Your task to perform on an android device: toggle show notifications on the lock screen Image 0: 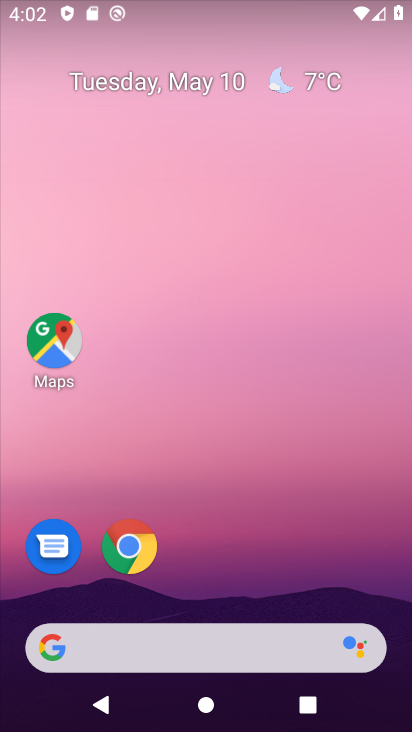
Step 0: drag from (220, 626) to (311, 107)
Your task to perform on an android device: toggle show notifications on the lock screen Image 1: 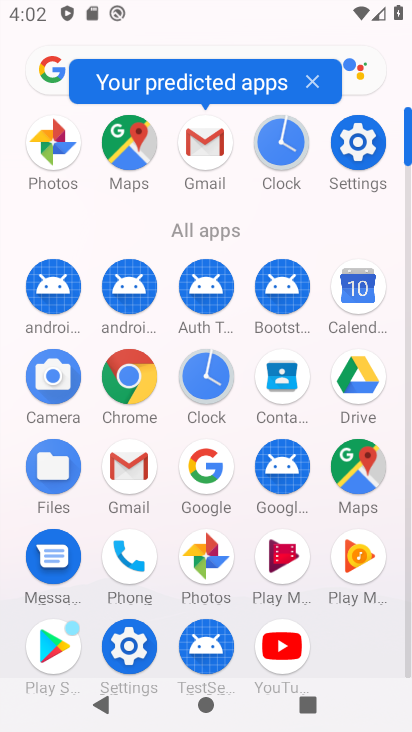
Step 1: click (128, 634)
Your task to perform on an android device: toggle show notifications on the lock screen Image 2: 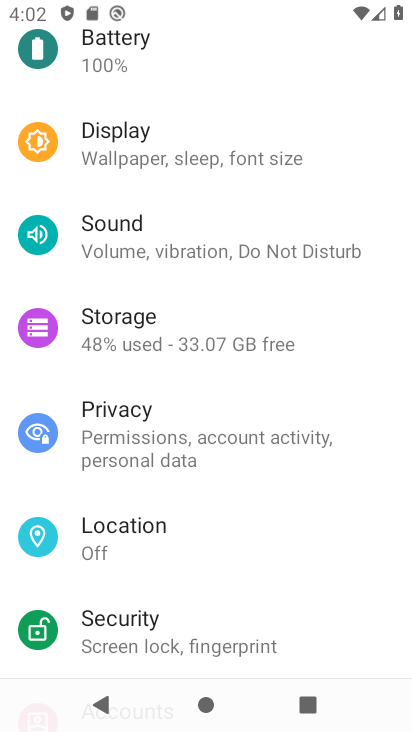
Step 2: drag from (208, 613) to (275, 353)
Your task to perform on an android device: toggle show notifications on the lock screen Image 3: 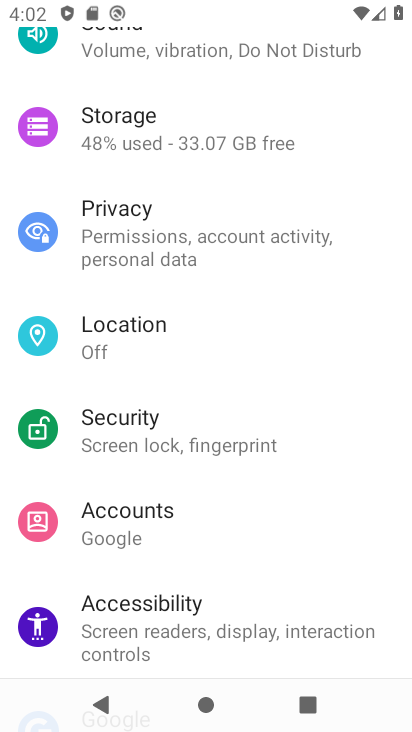
Step 3: drag from (192, 631) to (217, 714)
Your task to perform on an android device: toggle show notifications on the lock screen Image 4: 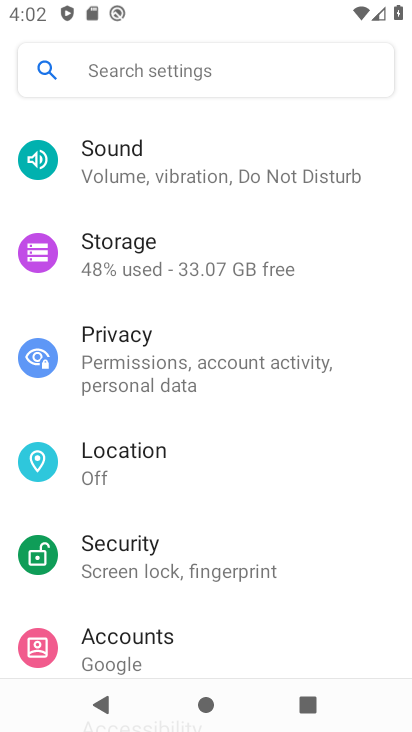
Step 4: drag from (248, 249) to (209, 658)
Your task to perform on an android device: toggle show notifications on the lock screen Image 5: 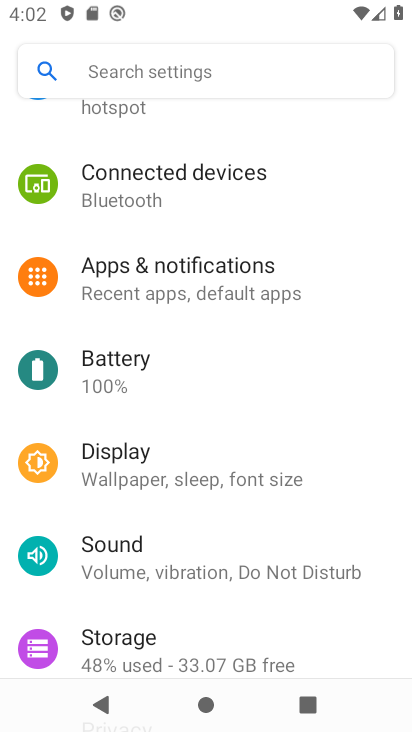
Step 5: click (234, 295)
Your task to perform on an android device: toggle show notifications on the lock screen Image 6: 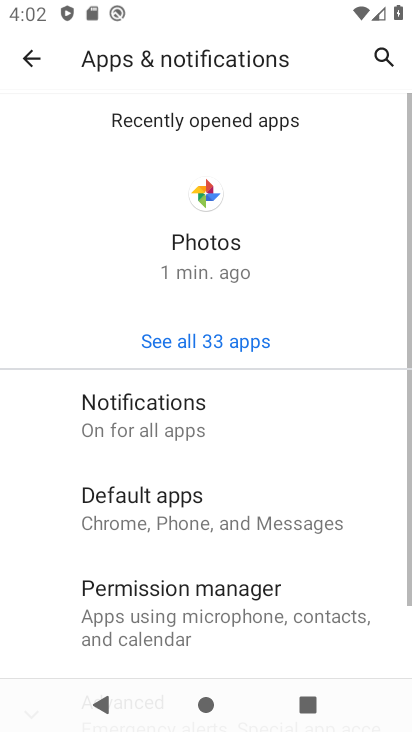
Step 6: click (207, 416)
Your task to perform on an android device: toggle show notifications on the lock screen Image 7: 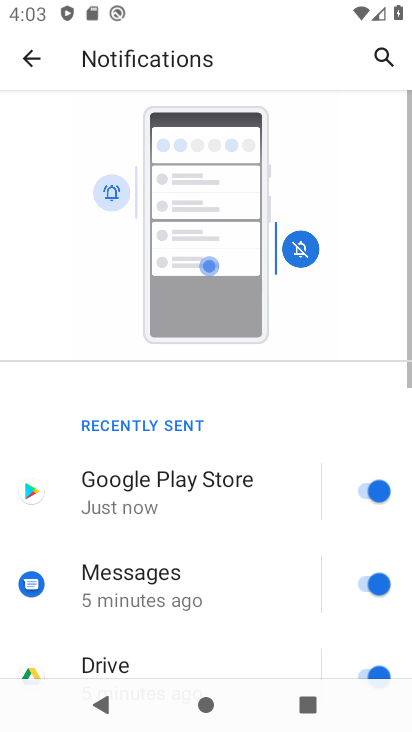
Step 7: drag from (208, 591) to (299, 189)
Your task to perform on an android device: toggle show notifications on the lock screen Image 8: 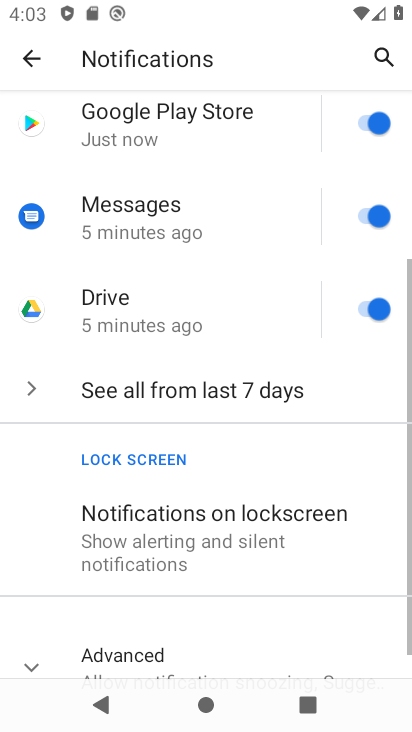
Step 8: drag from (231, 596) to (276, 356)
Your task to perform on an android device: toggle show notifications on the lock screen Image 9: 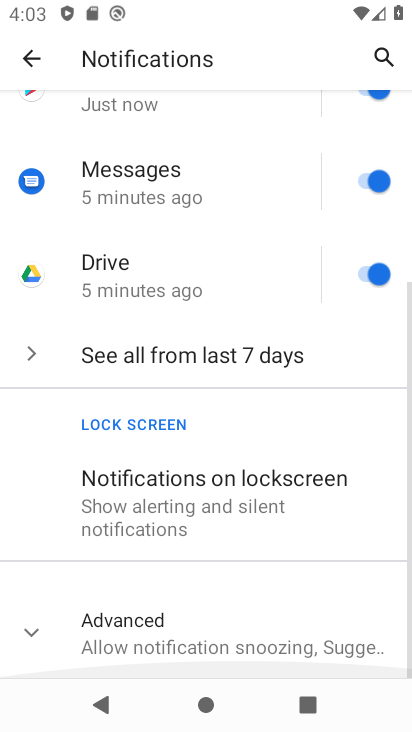
Step 9: click (242, 476)
Your task to perform on an android device: toggle show notifications on the lock screen Image 10: 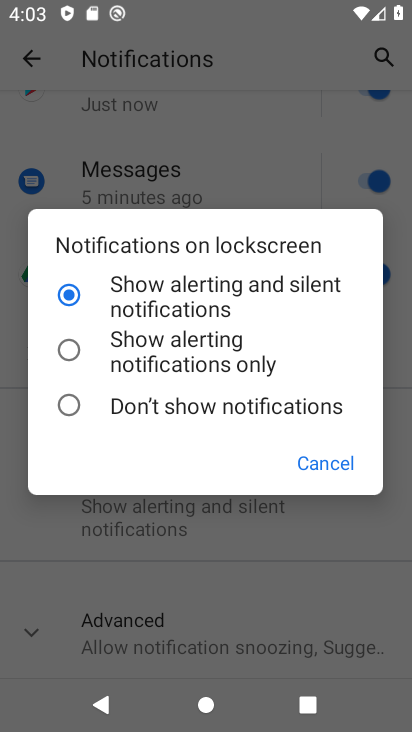
Step 10: click (168, 403)
Your task to perform on an android device: toggle show notifications on the lock screen Image 11: 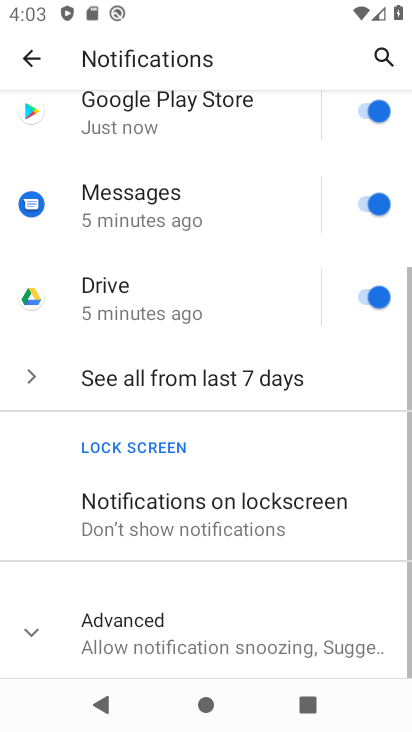
Step 11: task complete